Your task to perform on an android device: See recent photos Image 0: 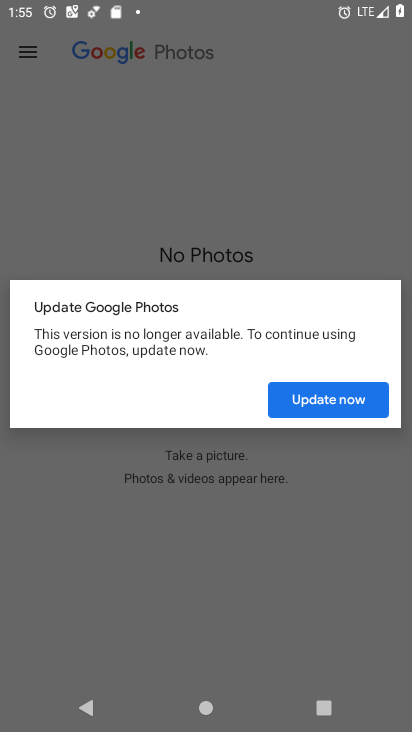
Step 0: task impossible